Your task to perform on an android device: Go to Amazon Image 0: 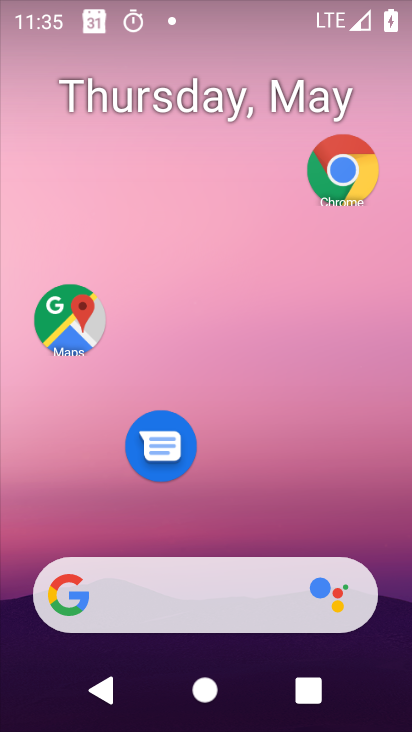
Step 0: drag from (250, 562) to (243, 1)
Your task to perform on an android device: Go to Amazon Image 1: 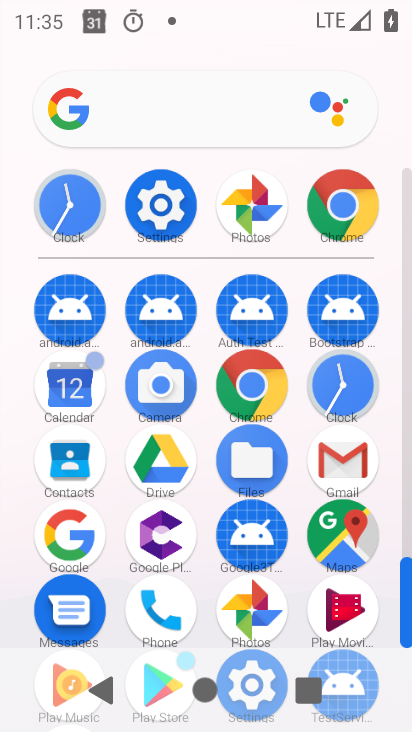
Step 1: click (247, 389)
Your task to perform on an android device: Go to Amazon Image 2: 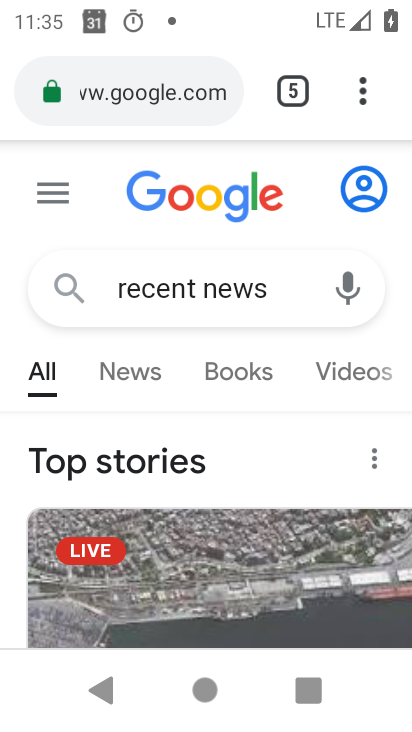
Step 2: drag from (350, 84) to (409, 397)
Your task to perform on an android device: Go to Amazon Image 3: 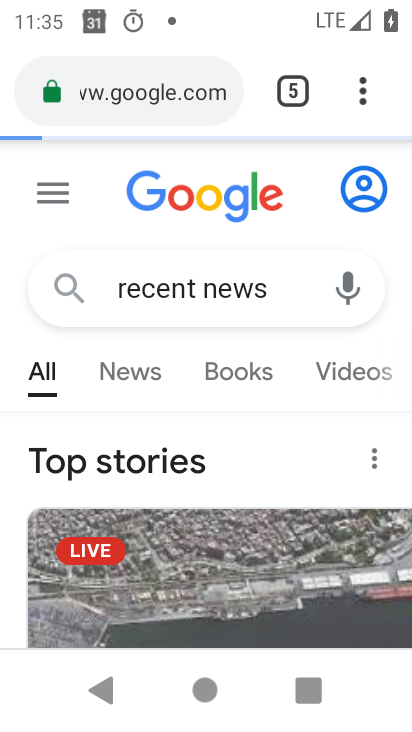
Step 3: press back button
Your task to perform on an android device: Go to Amazon Image 4: 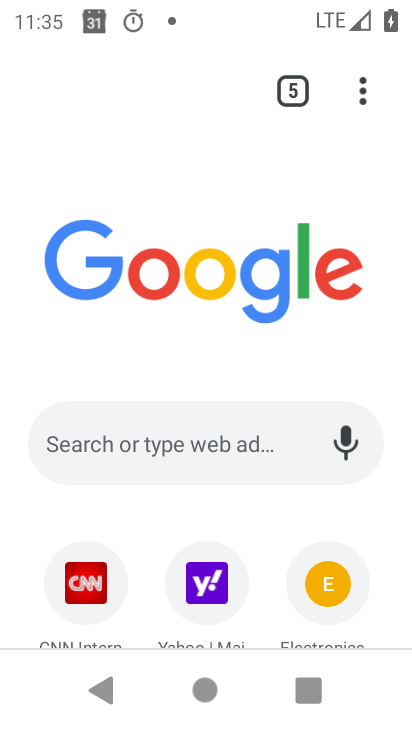
Step 4: drag from (244, 551) to (265, 193)
Your task to perform on an android device: Go to Amazon Image 5: 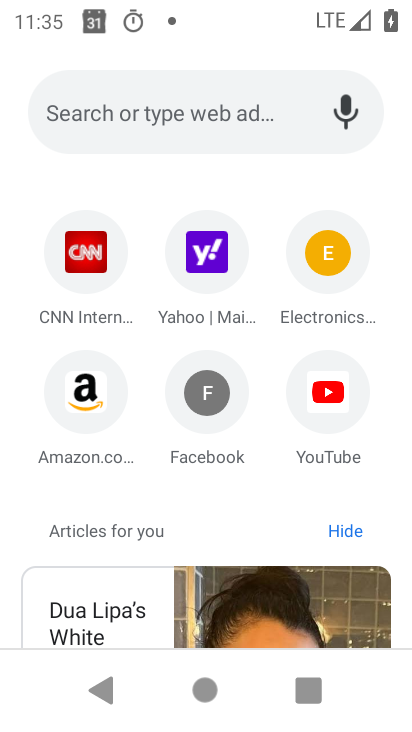
Step 5: click (94, 389)
Your task to perform on an android device: Go to Amazon Image 6: 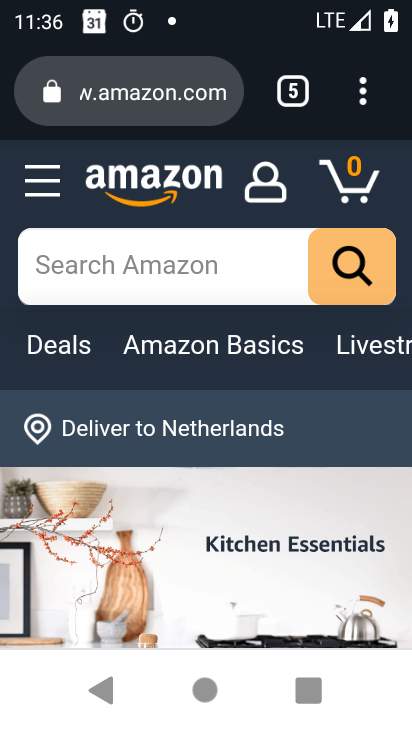
Step 6: task complete